Your task to perform on an android device: open app "Pluto TV - Live TV and Movies" (install if not already installed) Image 0: 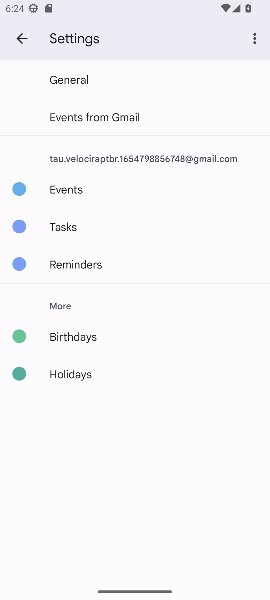
Step 0: press home button
Your task to perform on an android device: open app "Pluto TV - Live TV and Movies" (install if not already installed) Image 1: 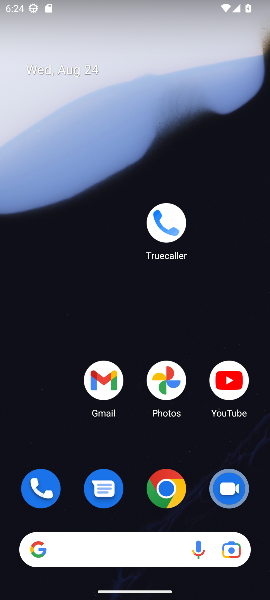
Step 1: drag from (134, 501) to (155, 77)
Your task to perform on an android device: open app "Pluto TV - Live TV and Movies" (install if not already installed) Image 2: 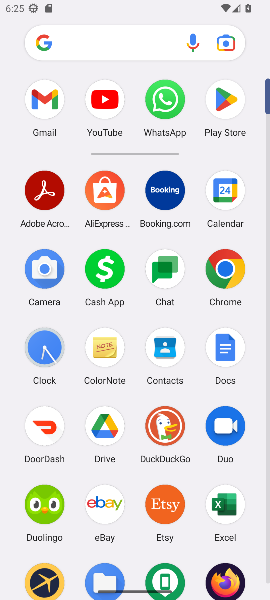
Step 2: drag from (133, 517) to (140, 215)
Your task to perform on an android device: open app "Pluto TV - Live TV and Movies" (install if not already installed) Image 3: 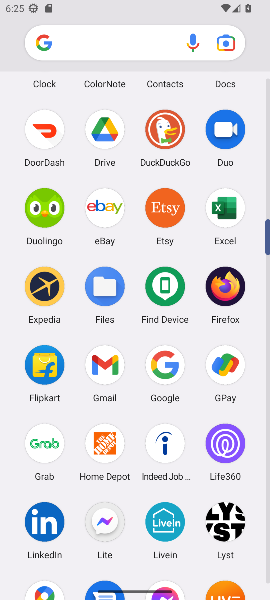
Step 3: drag from (140, 401) to (113, 90)
Your task to perform on an android device: open app "Pluto TV - Live TV and Movies" (install if not already installed) Image 4: 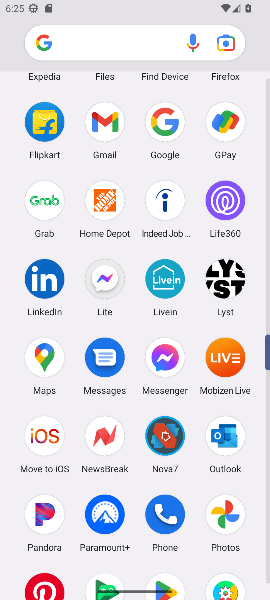
Step 4: drag from (125, 518) to (122, 286)
Your task to perform on an android device: open app "Pluto TV - Live TV and Movies" (install if not already installed) Image 5: 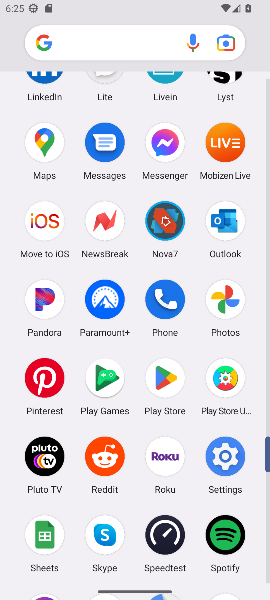
Step 5: click (58, 459)
Your task to perform on an android device: open app "Pluto TV - Live TV and Movies" (install if not already installed) Image 6: 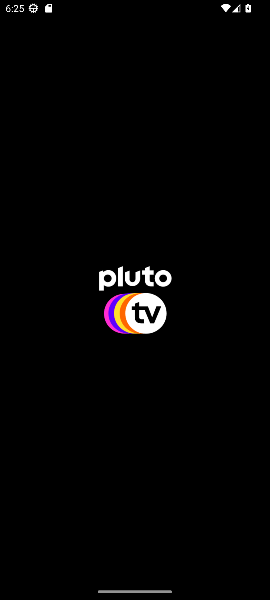
Step 6: task complete